Your task to perform on an android device: Search for Italian restaurants on Maps Image 0: 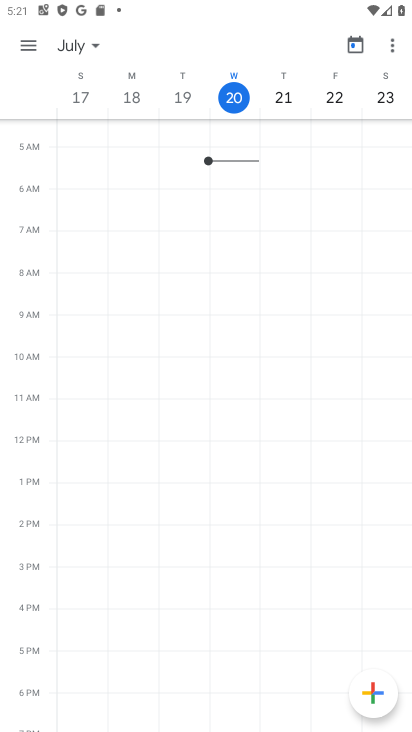
Step 0: press home button
Your task to perform on an android device: Search for Italian restaurants on Maps Image 1: 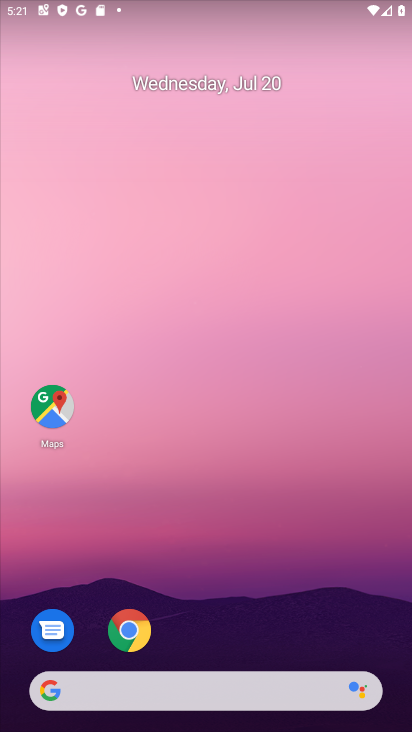
Step 1: click (52, 409)
Your task to perform on an android device: Search for Italian restaurants on Maps Image 2: 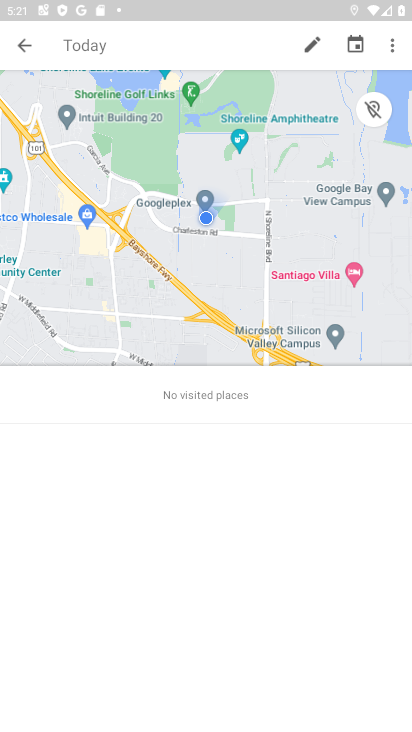
Step 2: press back button
Your task to perform on an android device: Search for Italian restaurants on Maps Image 3: 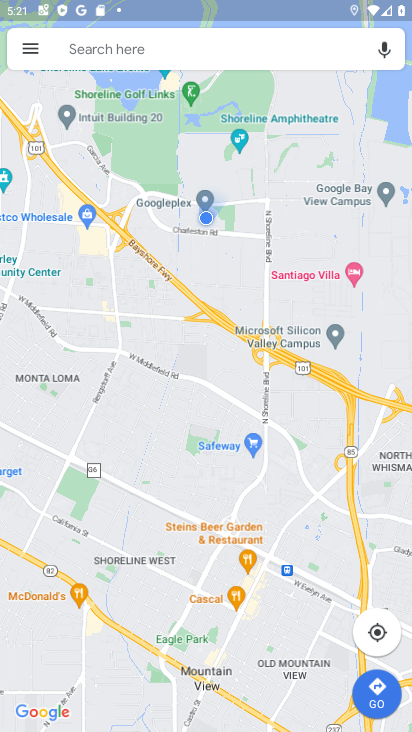
Step 3: click (195, 53)
Your task to perform on an android device: Search for Italian restaurants on Maps Image 4: 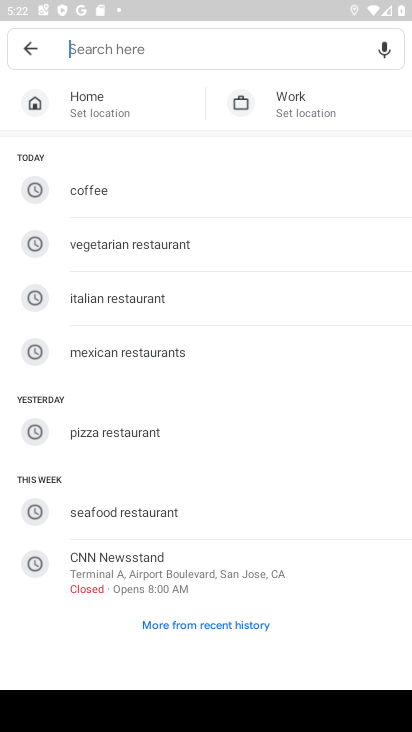
Step 4: type "Italian restaurants"
Your task to perform on an android device: Search for Italian restaurants on Maps Image 5: 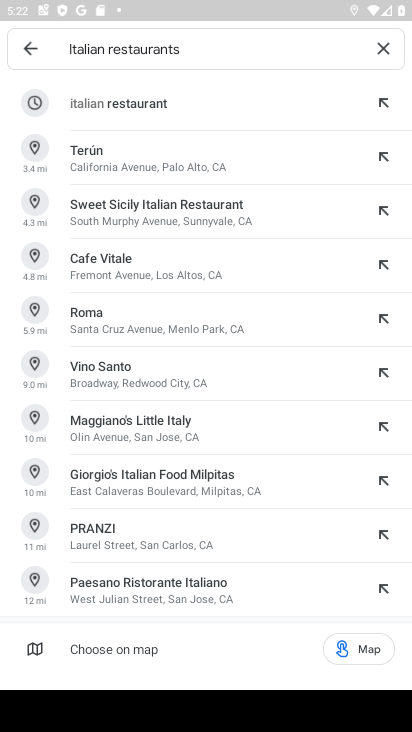
Step 5: click (147, 100)
Your task to perform on an android device: Search for Italian restaurants on Maps Image 6: 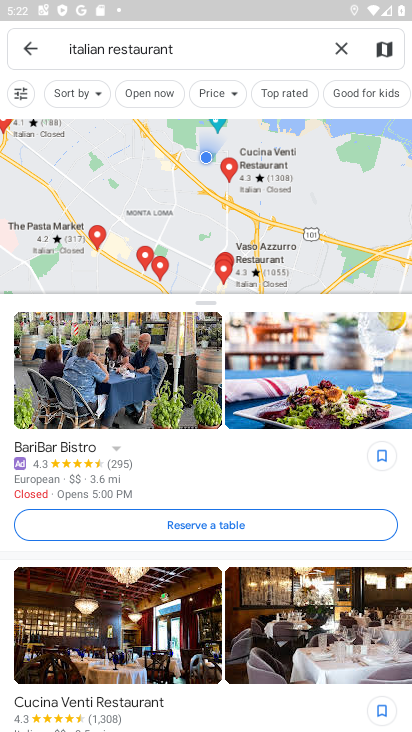
Step 6: task complete